Your task to perform on an android device: change notification settings in the gmail app Image 0: 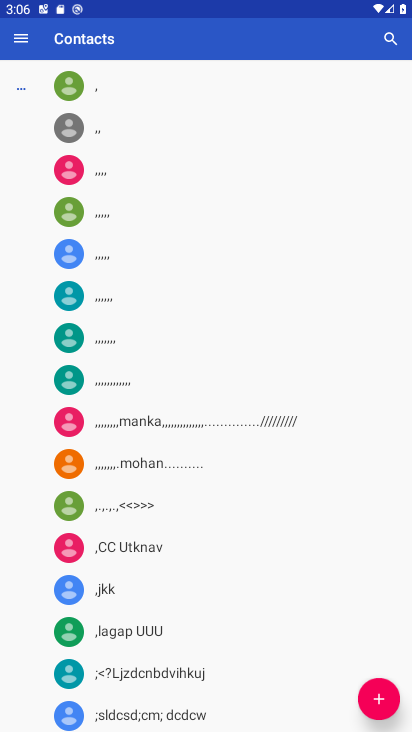
Step 0: press home button
Your task to perform on an android device: change notification settings in the gmail app Image 1: 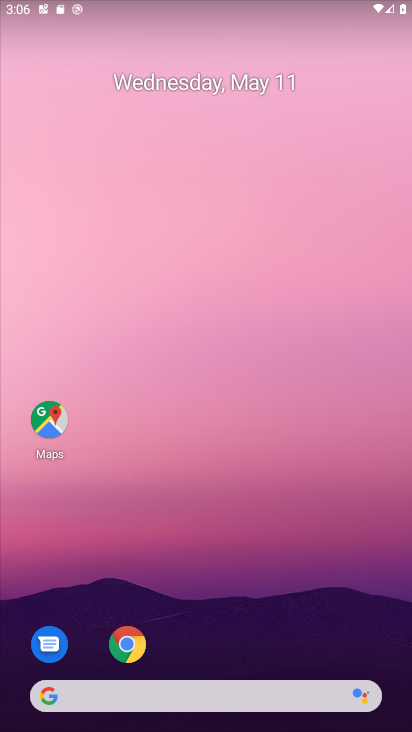
Step 1: drag from (176, 676) to (168, 15)
Your task to perform on an android device: change notification settings in the gmail app Image 2: 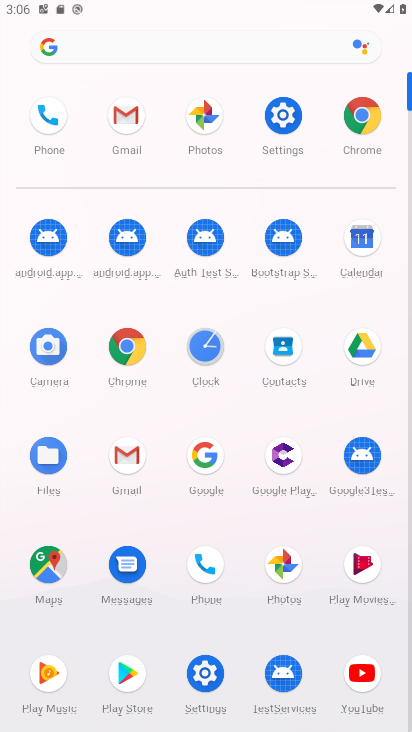
Step 2: click (117, 449)
Your task to perform on an android device: change notification settings in the gmail app Image 3: 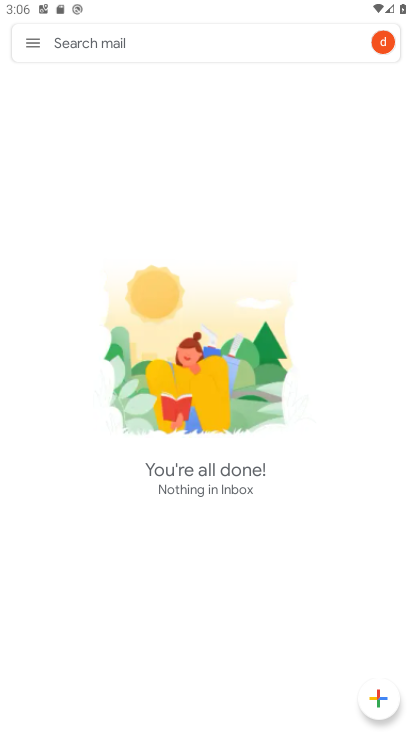
Step 3: click (39, 35)
Your task to perform on an android device: change notification settings in the gmail app Image 4: 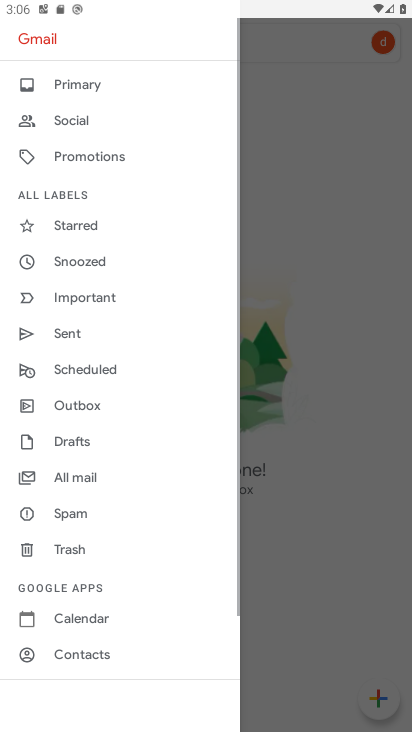
Step 4: drag from (72, 546) to (58, 173)
Your task to perform on an android device: change notification settings in the gmail app Image 5: 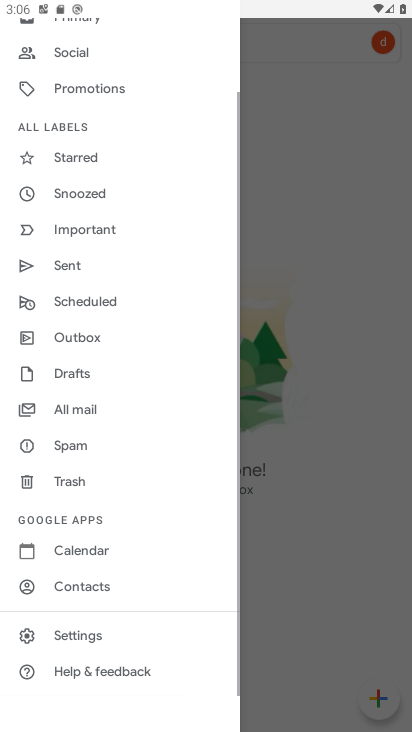
Step 5: click (69, 630)
Your task to perform on an android device: change notification settings in the gmail app Image 6: 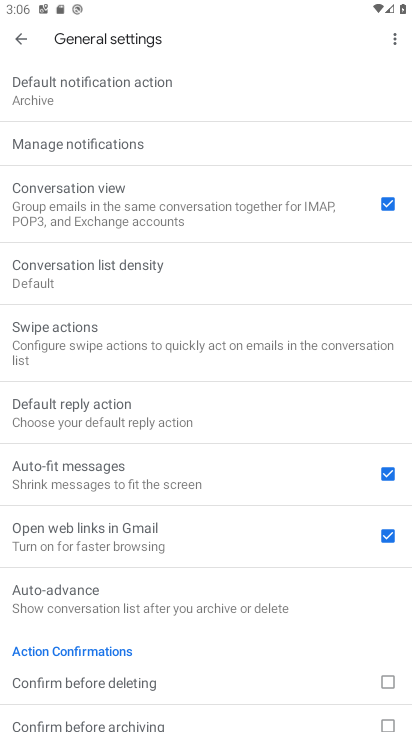
Step 6: click (75, 152)
Your task to perform on an android device: change notification settings in the gmail app Image 7: 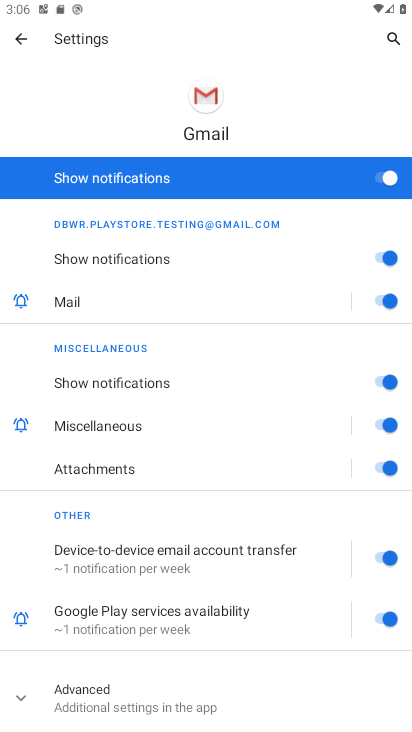
Step 7: click (375, 176)
Your task to perform on an android device: change notification settings in the gmail app Image 8: 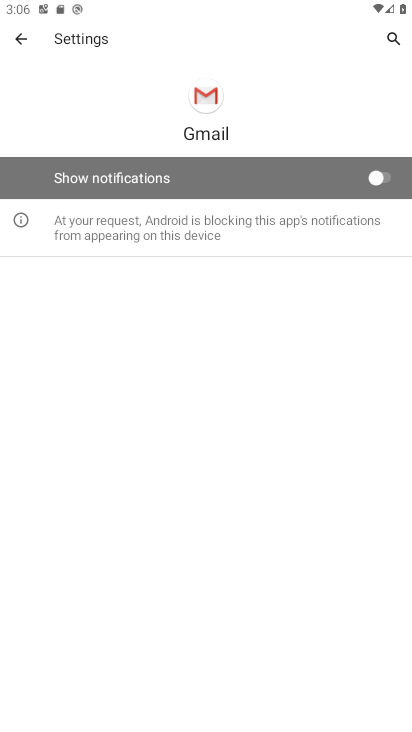
Step 8: task complete